Your task to perform on an android device: Go to network settings Image 0: 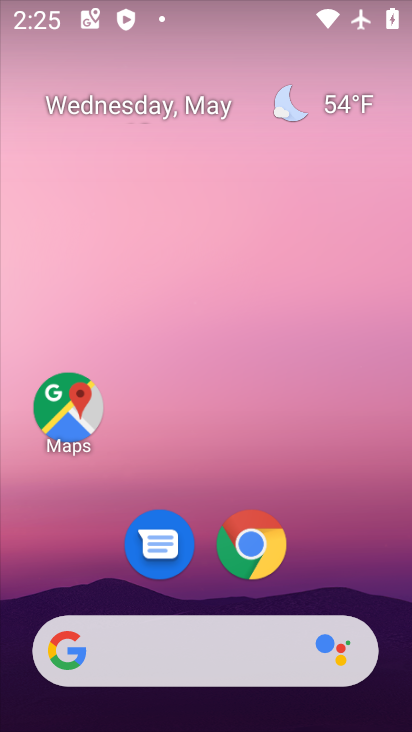
Step 0: drag from (352, 576) to (250, 40)
Your task to perform on an android device: Go to network settings Image 1: 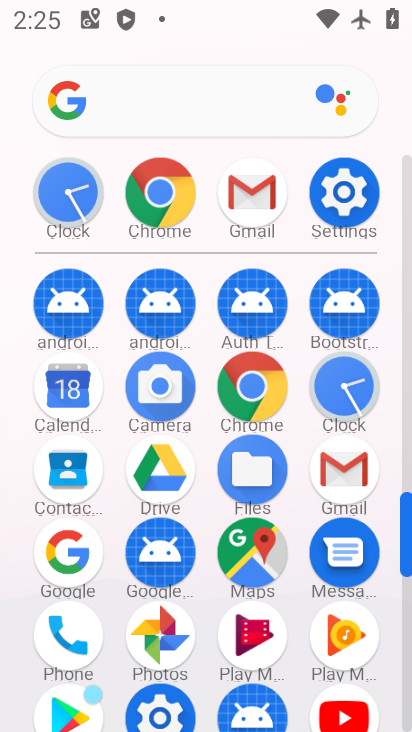
Step 1: click (354, 181)
Your task to perform on an android device: Go to network settings Image 2: 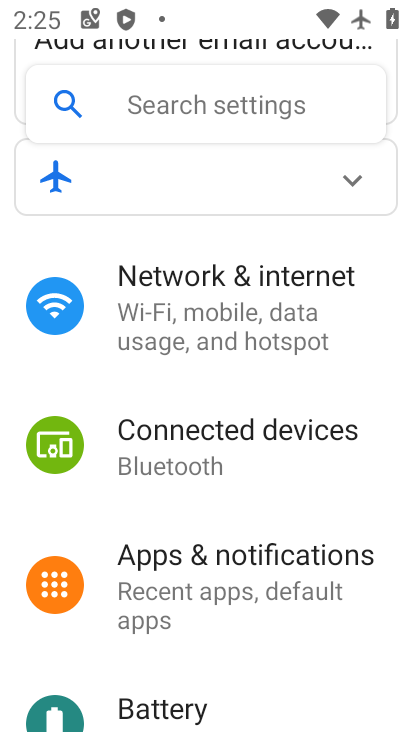
Step 2: click (215, 294)
Your task to perform on an android device: Go to network settings Image 3: 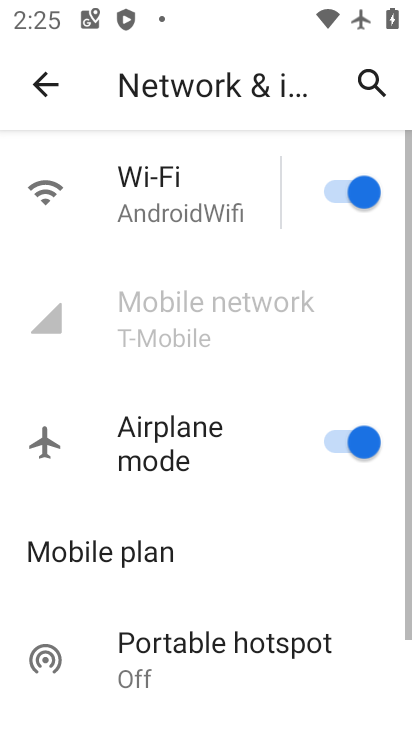
Step 3: task complete